Your task to perform on an android device: make emails show in primary in the gmail app Image 0: 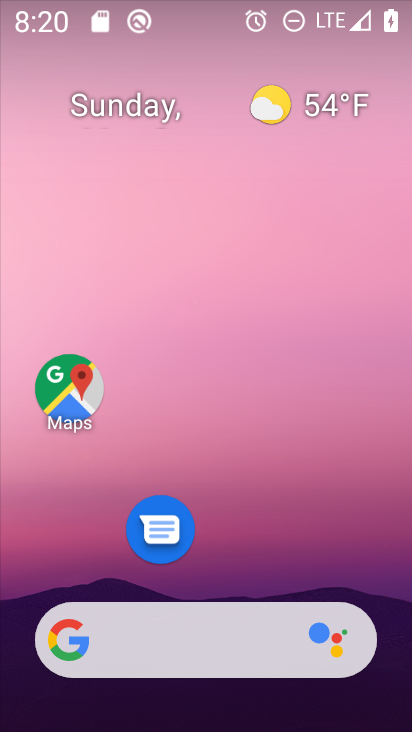
Step 0: drag from (257, 571) to (342, 17)
Your task to perform on an android device: make emails show in primary in the gmail app Image 1: 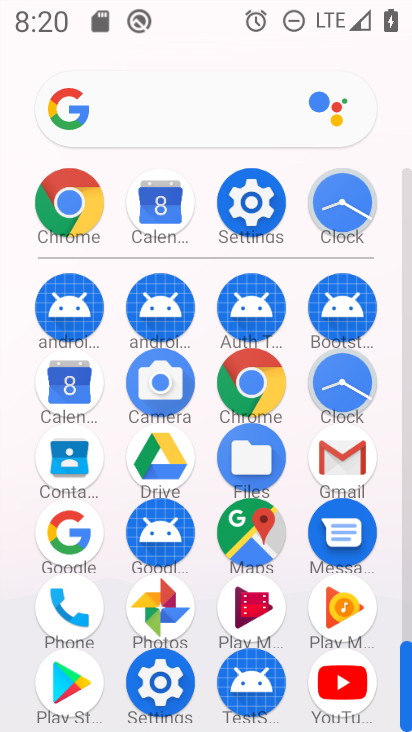
Step 1: click (346, 469)
Your task to perform on an android device: make emails show in primary in the gmail app Image 2: 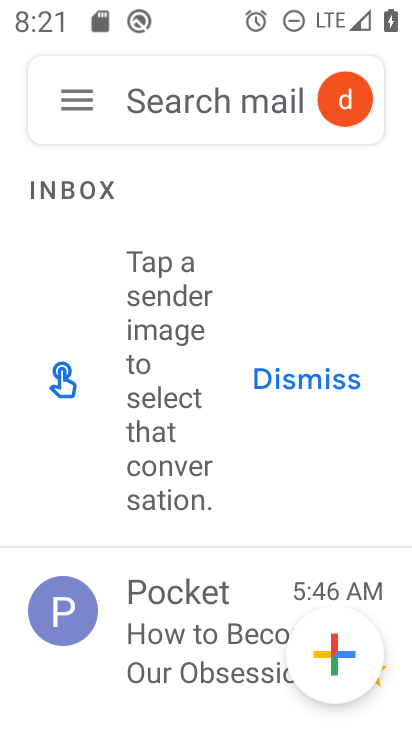
Step 2: click (75, 95)
Your task to perform on an android device: make emails show in primary in the gmail app Image 3: 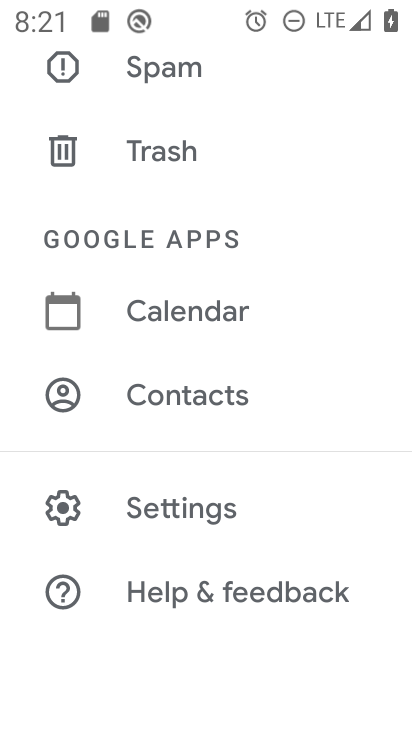
Step 3: click (154, 519)
Your task to perform on an android device: make emails show in primary in the gmail app Image 4: 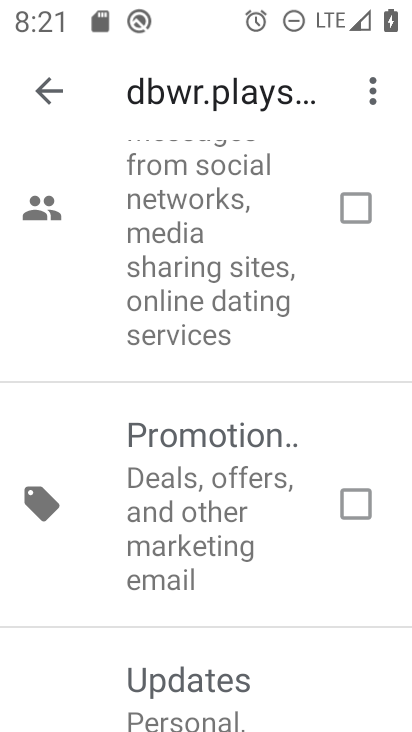
Step 4: drag from (225, 300) to (228, 699)
Your task to perform on an android device: make emails show in primary in the gmail app Image 5: 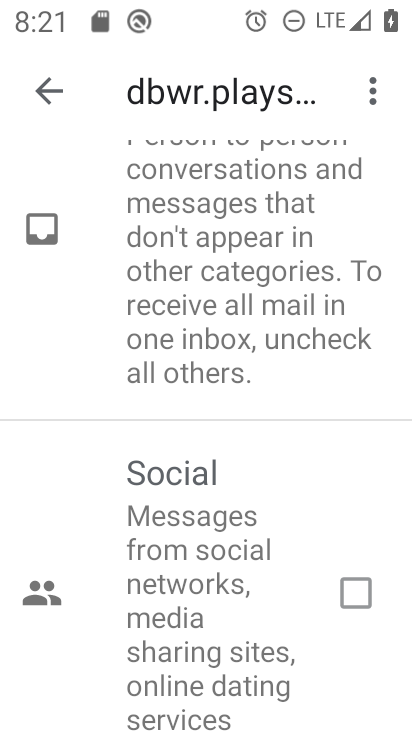
Step 5: drag from (178, 283) to (185, 727)
Your task to perform on an android device: make emails show in primary in the gmail app Image 6: 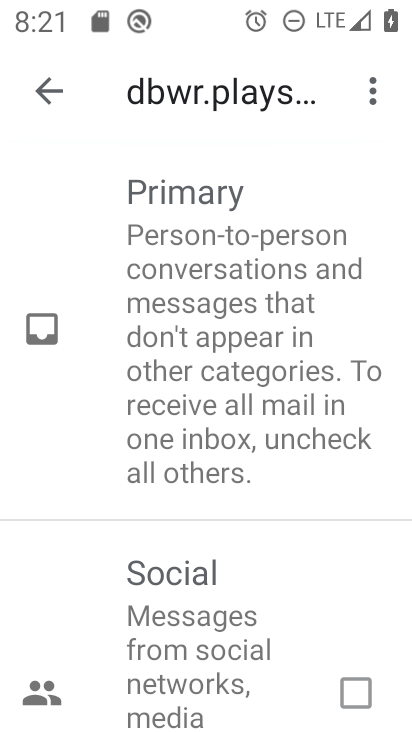
Step 6: click (174, 424)
Your task to perform on an android device: make emails show in primary in the gmail app Image 7: 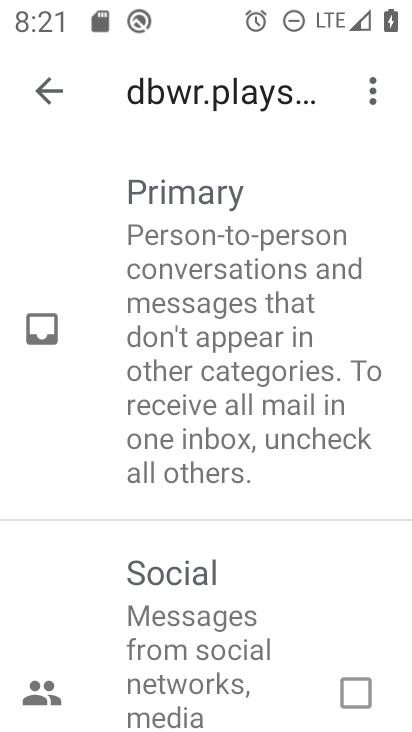
Step 7: task complete